Your task to perform on an android device: Search for Mexican restaurants on Maps Image 0: 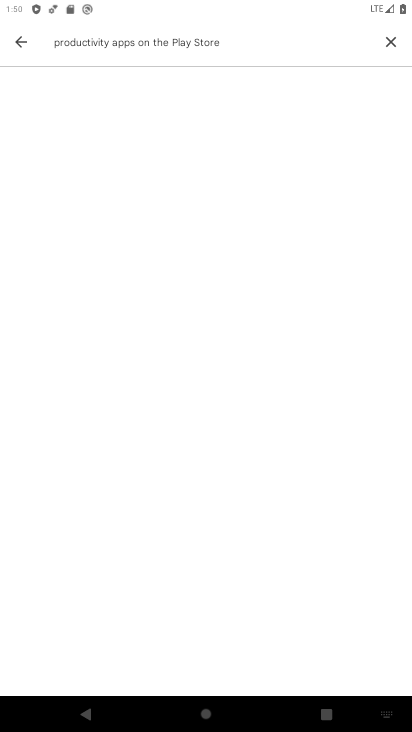
Step 0: click (389, 46)
Your task to perform on an android device: Search for Mexican restaurants on Maps Image 1: 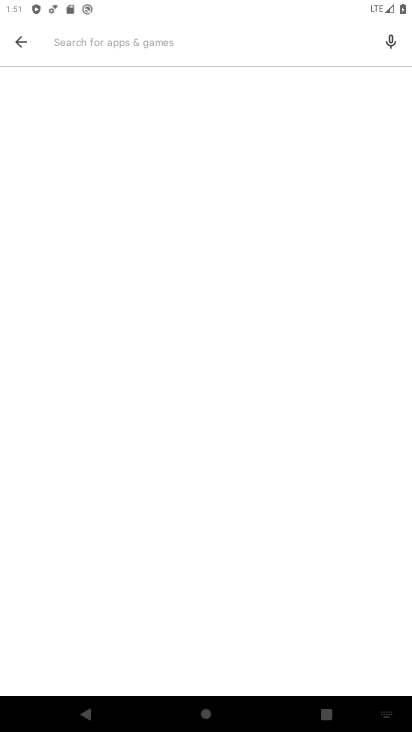
Step 1: press back button
Your task to perform on an android device: Search for Mexican restaurants on Maps Image 2: 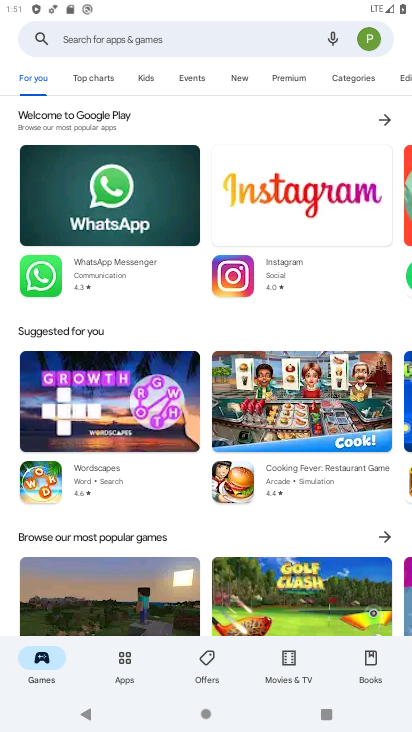
Step 2: press back button
Your task to perform on an android device: Search for Mexican restaurants on Maps Image 3: 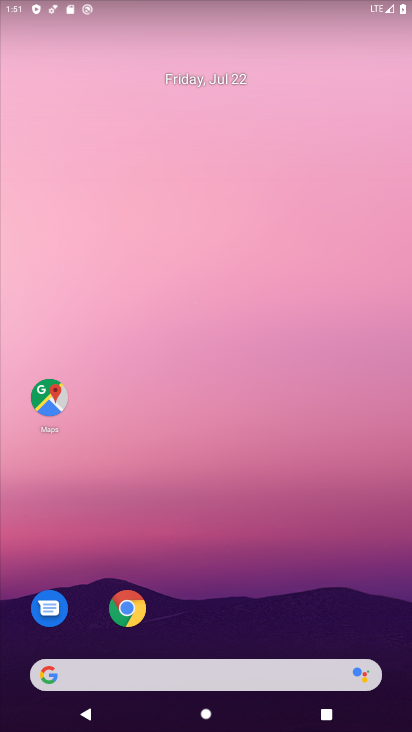
Step 3: drag from (402, 648) to (311, 28)
Your task to perform on an android device: Search for Mexican restaurants on Maps Image 4: 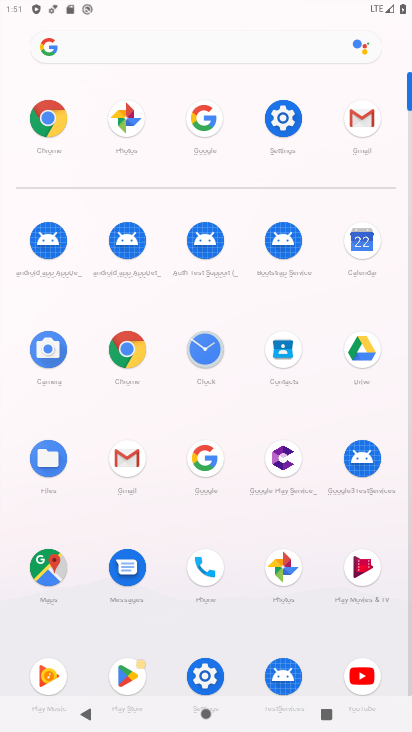
Step 4: click (52, 568)
Your task to perform on an android device: Search for Mexican restaurants on Maps Image 5: 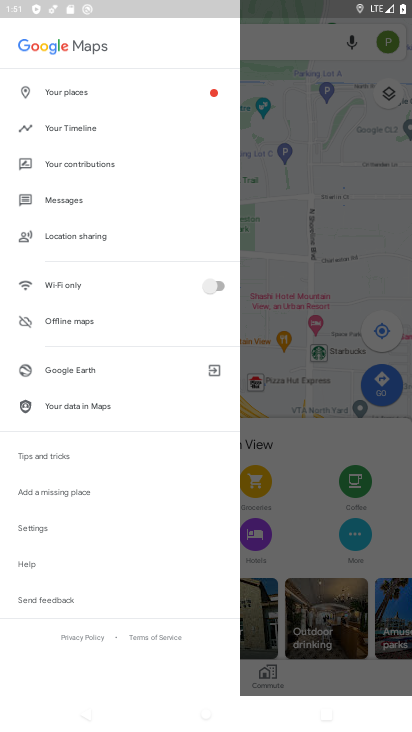
Step 5: press back button
Your task to perform on an android device: Search for Mexican restaurants on Maps Image 6: 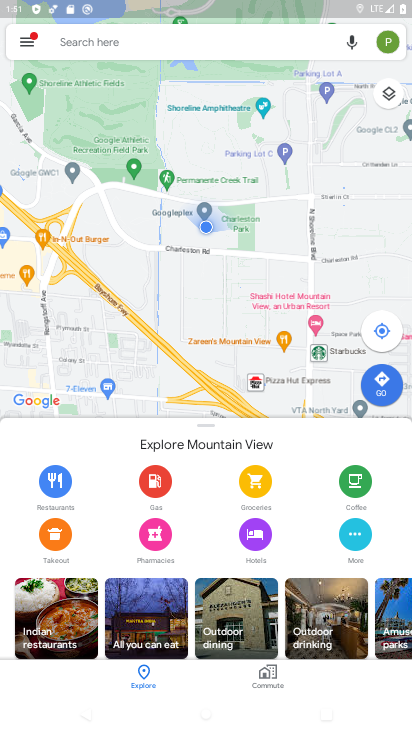
Step 6: click (59, 43)
Your task to perform on an android device: Search for Mexican restaurants on Maps Image 7: 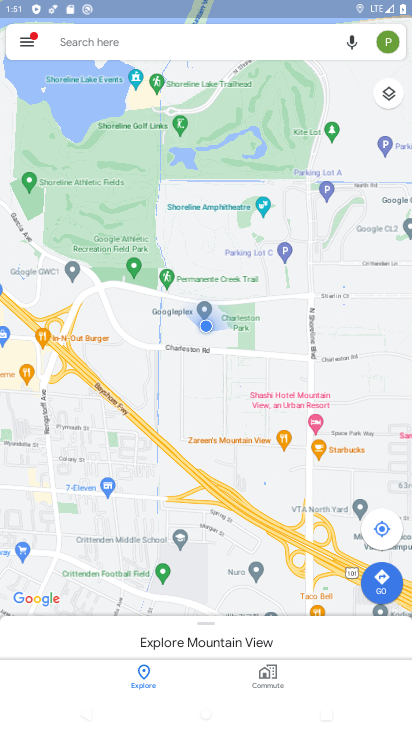
Step 7: click (107, 44)
Your task to perform on an android device: Search for Mexican restaurants on Maps Image 8: 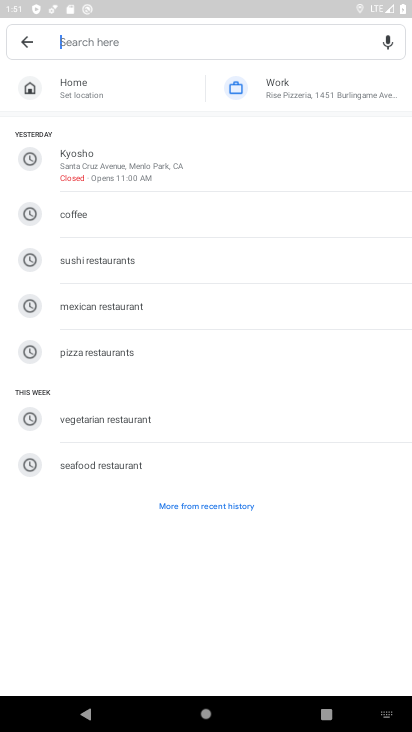
Step 8: type "Mexican restaurants"
Your task to perform on an android device: Search for Mexican restaurants on Maps Image 9: 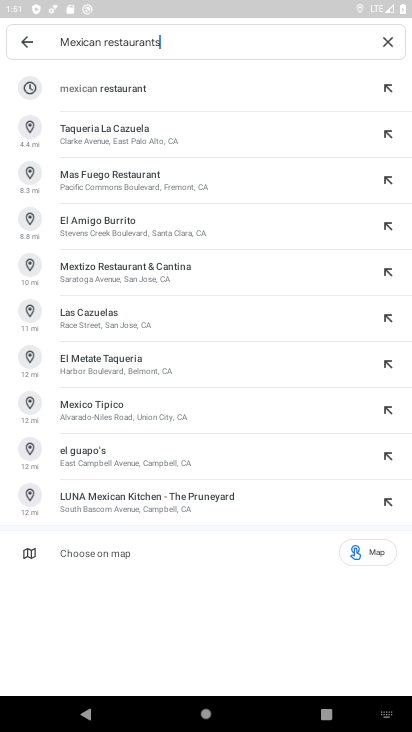
Step 9: click (101, 87)
Your task to perform on an android device: Search for Mexican restaurants on Maps Image 10: 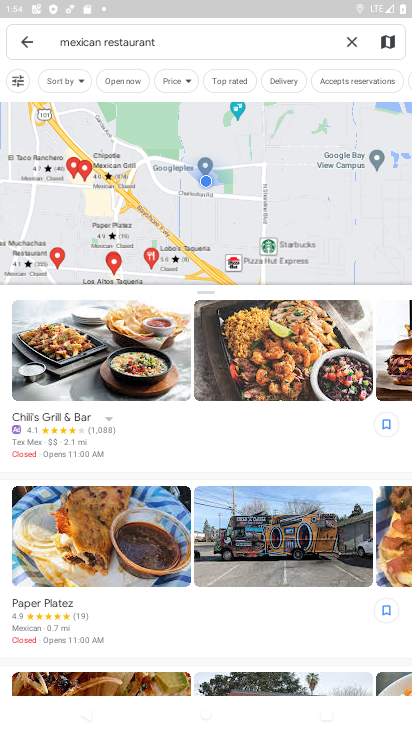
Step 10: task complete